Your task to perform on an android device: Open Yahoo.com Image 0: 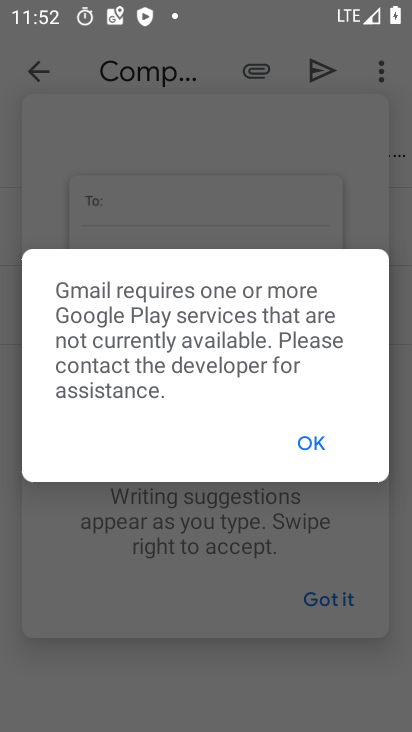
Step 0: click (321, 445)
Your task to perform on an android device: Open Yahoo.com Image 1: 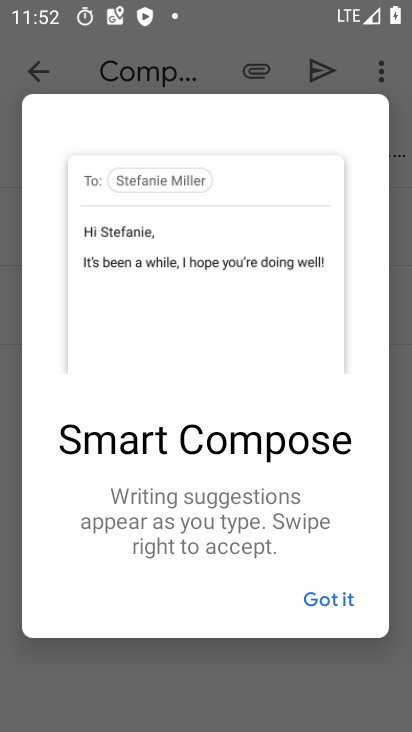
Step 1: click (333, 589)
Your task to perform on an android device: Open Yahoo.com Image 2: 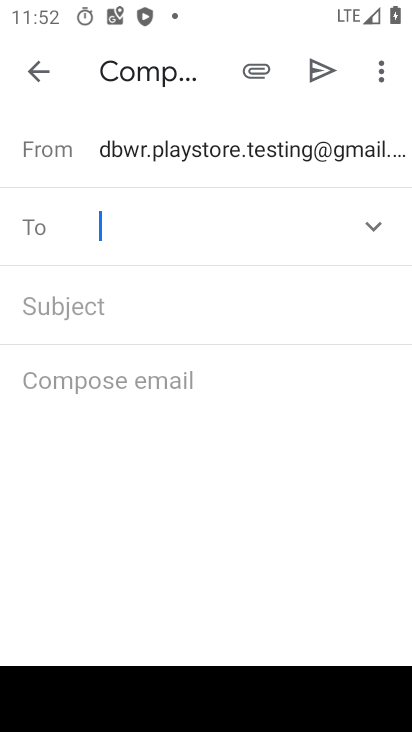
Step 2: press home button
Your task to perform on an android device: Open Yahoo.com Image 3: 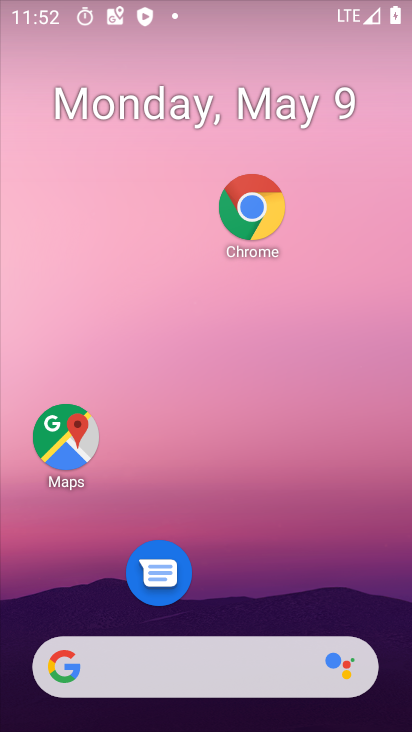
Step 3: drag from (162, 537) to (186, 34)
Your task to perform on an android device: Open Yahoo.com Image 4: 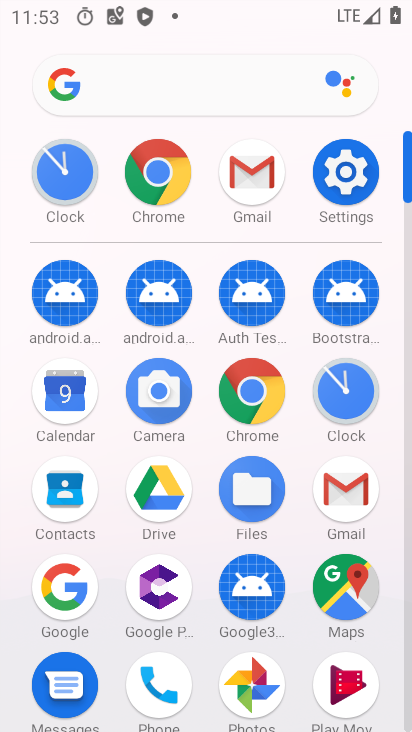
Step 4: click (120, 239)
Your task to perform on an android device: Open Yahoo.com Image 5: 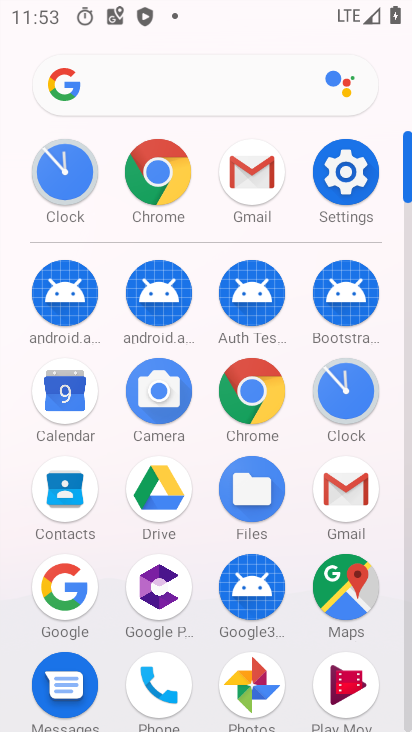
Step 5: click (254, 369)
Your task to perform on an android device: Open Yahoo.com Image 6: 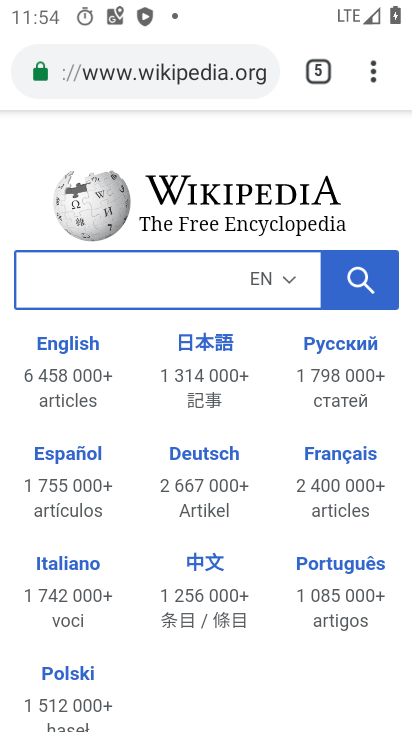
Step 6: click (159, 77)
Your task to perform on an android device: Open Yahoo.com Image 7: 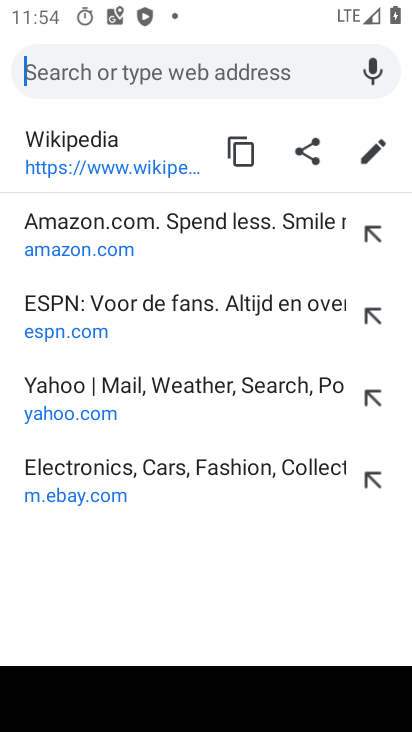
Step 7: click (115, 406)
Your task to perform on an android device: Open Yahoo.com Image 8: 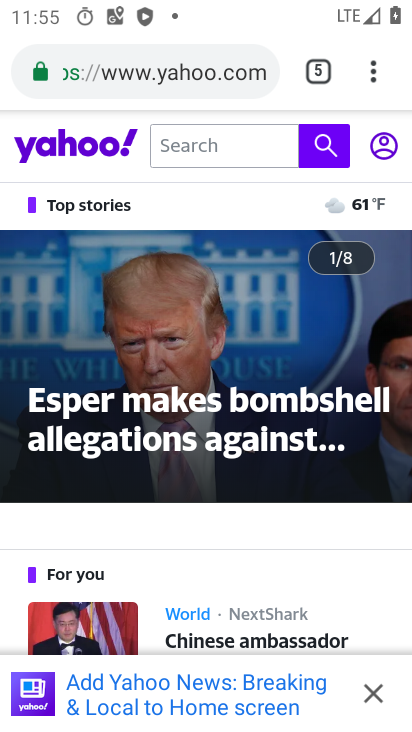
Step 8: task complete